Your task to perform on an android device: Open notification settings Image 0: 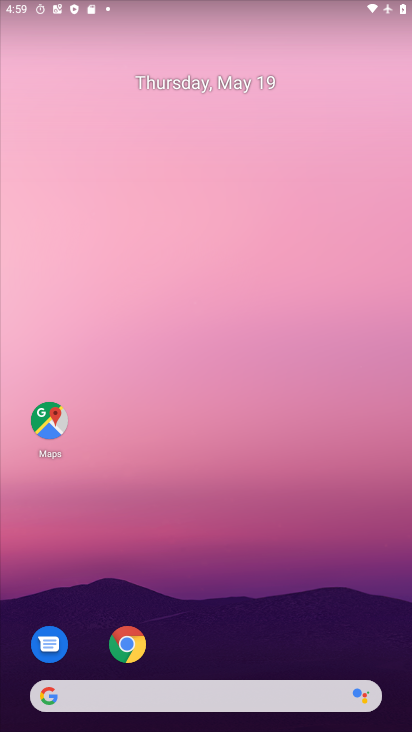
Step 0: drag from (181, 626) to (228, 237)
Your task to perform on an android device: Open notification settings Image 1: 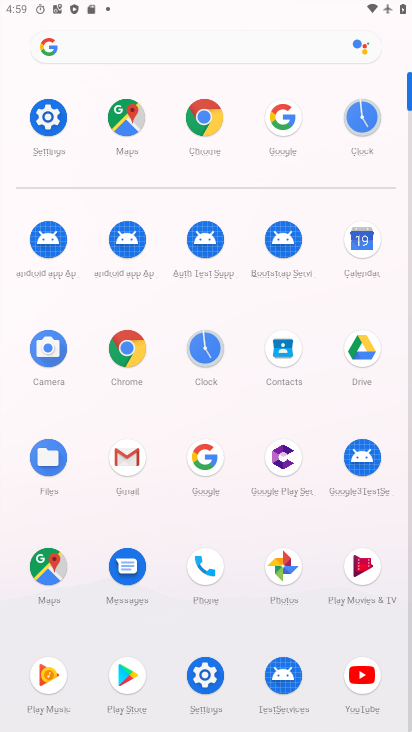
Step 1: click (52, 106)
Your task to perform on an android device: Open notification settings Image 2: 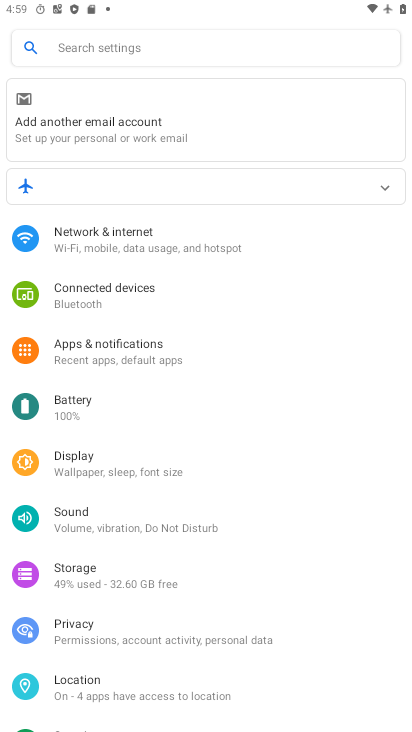
Step 2: click (117, 349)
Your task to perform on an android device: Open notification settings Image 3: 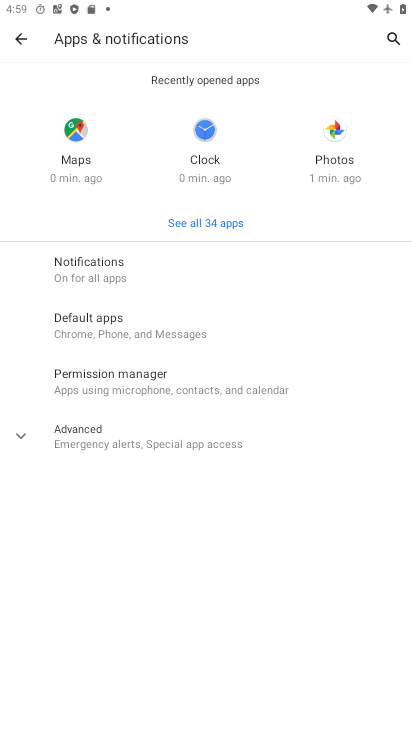
Step 3: click (81, 431)
Your task to perform on an android device: Open notification settings Image 4: 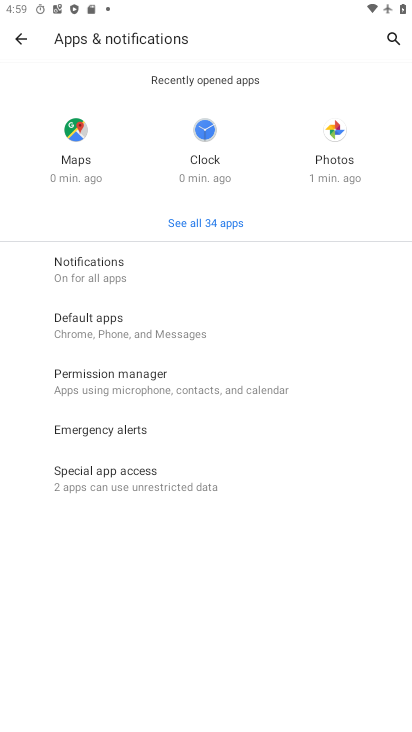
Step 4: task complete